Your task to perform on an android device: Open Google Chrome Image 0: 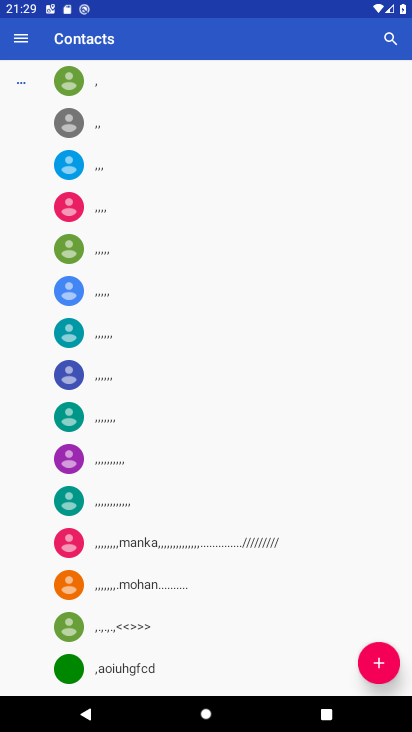
Step 0: press back button
Your task to perform on an android device: Open Google Chrome Image 1: 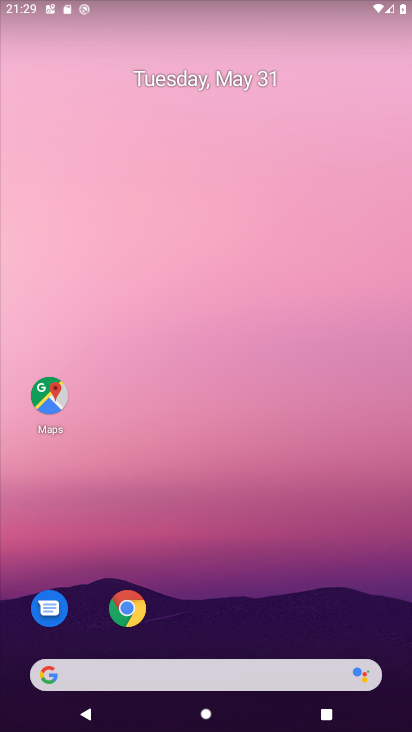
Step 1: click (129, 608)
Your task to perform on an android device: Open Google Chrome Image 2: 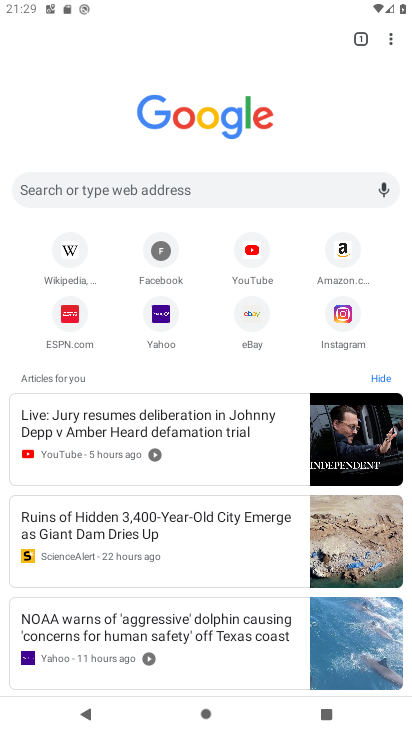
Step 2: task complete